Your task to perform on an android device: Search for "rayovac triple a" on walmart, select the first entry, and add it to the cart. Image 0: 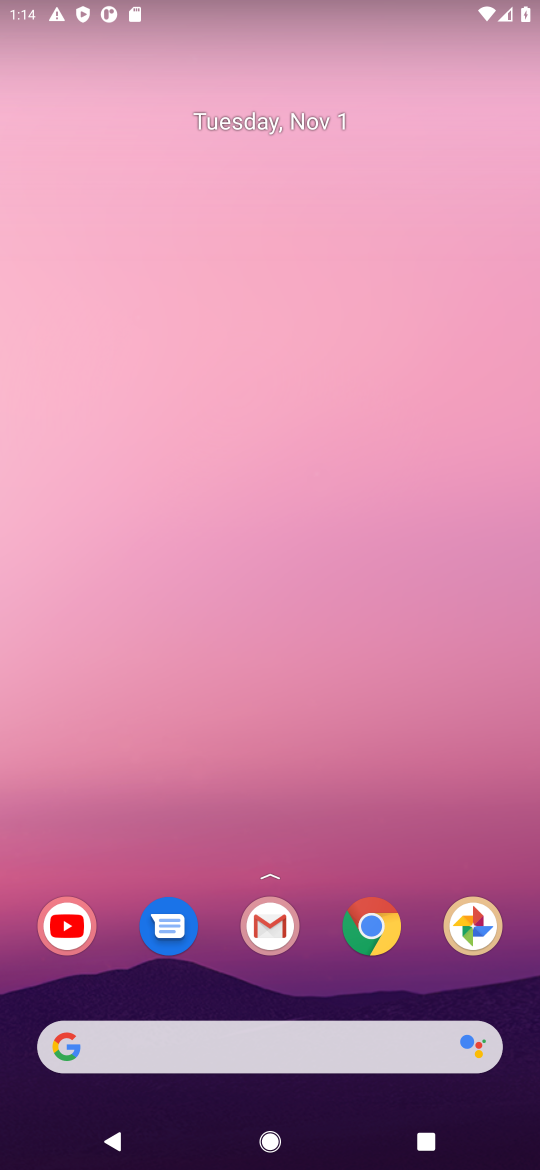
Step 0: click (373, 926)
Your task to perform on an android device: Search for "rayovac triple a" on walmart, select the first entry, and add it to the cart. Image 1: 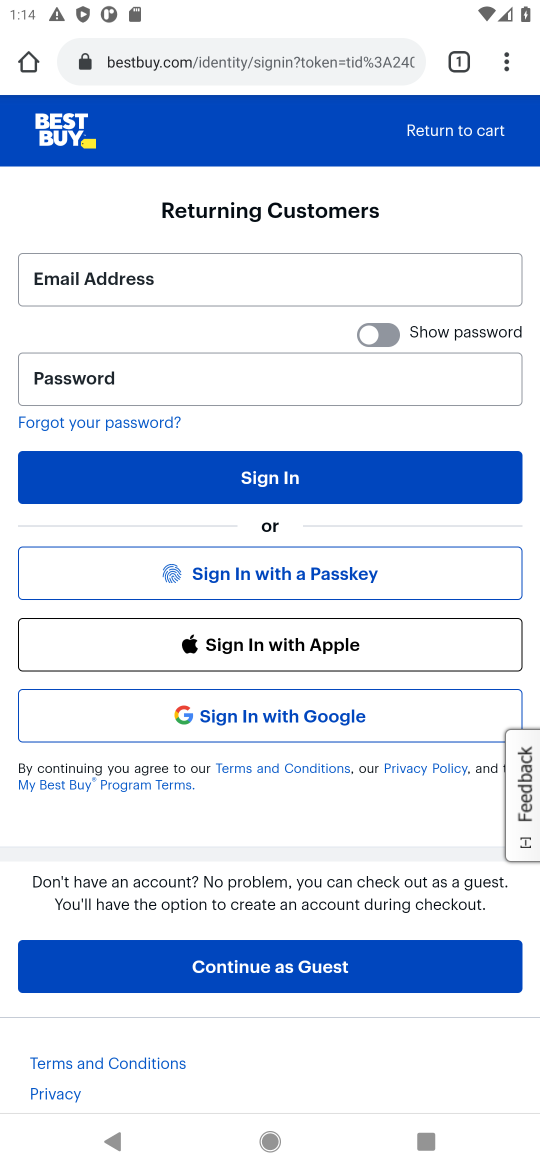
Step 1: click (344, 53)
Your task to perform on an android device: Search for "rayovac triple a" on walmart, select the first entry, and add it to the cart. Image 2: 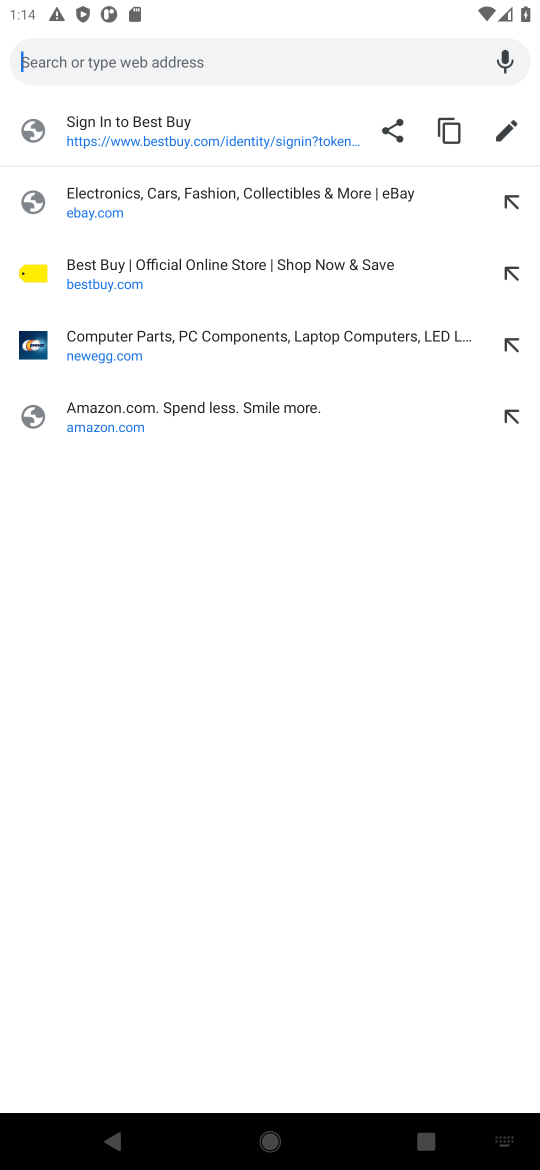
Step 2: type "walmart"
Your task to perform on an android device: Search for "rayovac triple a" on walmart, select the first entry, and add it to the cart. Image 3: 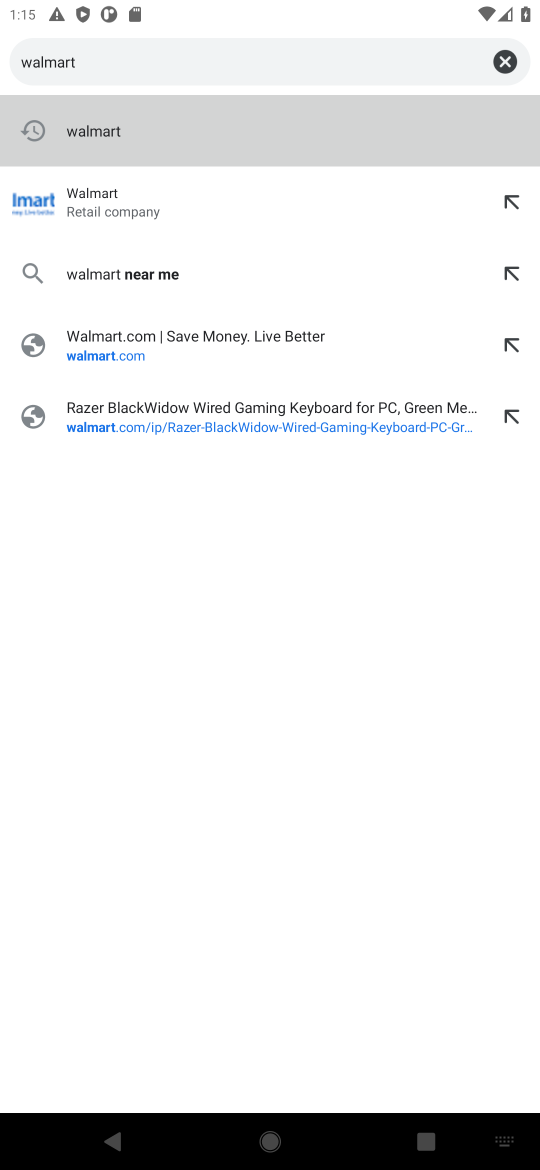
Step 3: click (166, 133)
Your task to perform on an android device: Search for "rayovac triple a" on walmart, select the first entry, and add it to the cart. Image 4: 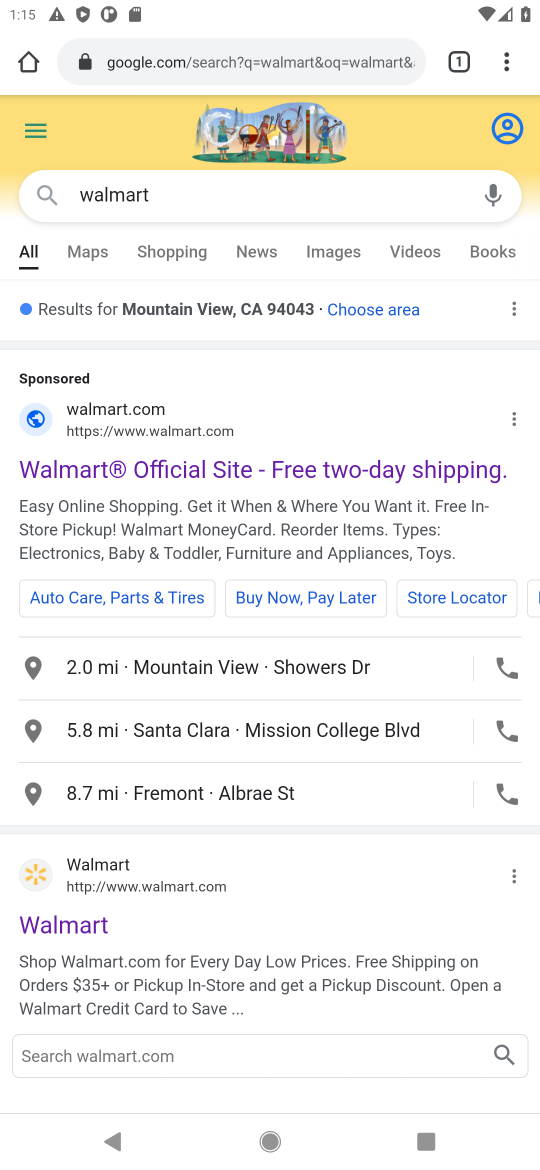
Step 4: click (70, 926)
Your task to perform on an android device: Search for "rayovac triple a" on walmart, select the first entry, and add it to the cart. Image 5: 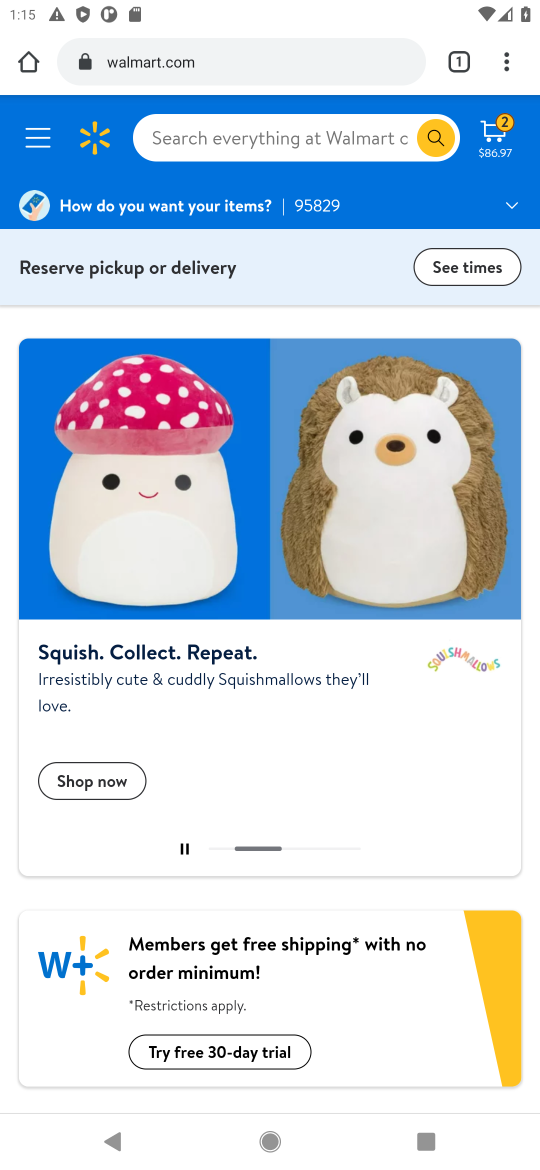
Step 5: click (248, 142)
Your task to perform on an android device: Search for "rayovac triple a" on walmart, select the first entry, and add it to the cart. Image 6: 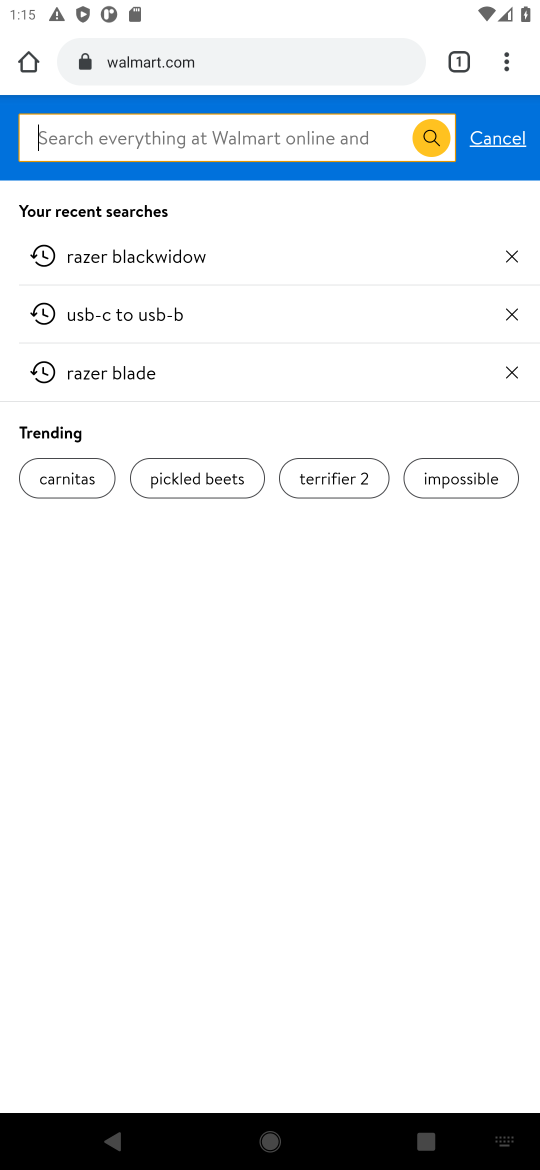
Step 6: type "rayovac triple a"
Your task to perform on an android device: Search for "rayovac triple a" on walmart, select the first entry, and add it to the cart. Image 7: 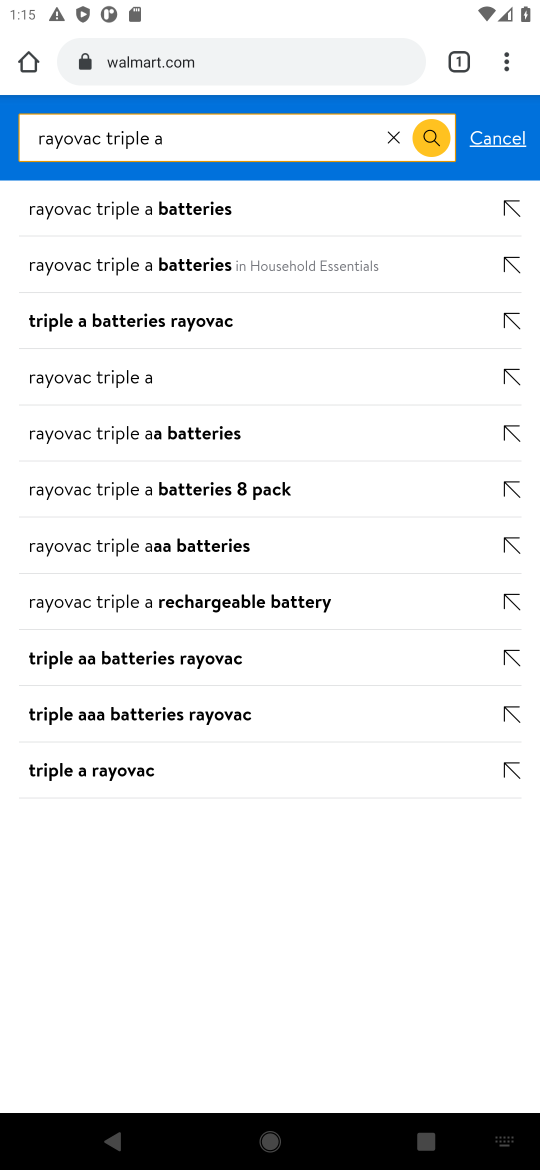
Step 7: press enter
Your task to perform on an android device: Search for "rayovac triple a" on walmart, select the first entry, and add it to the cart. Image 8: 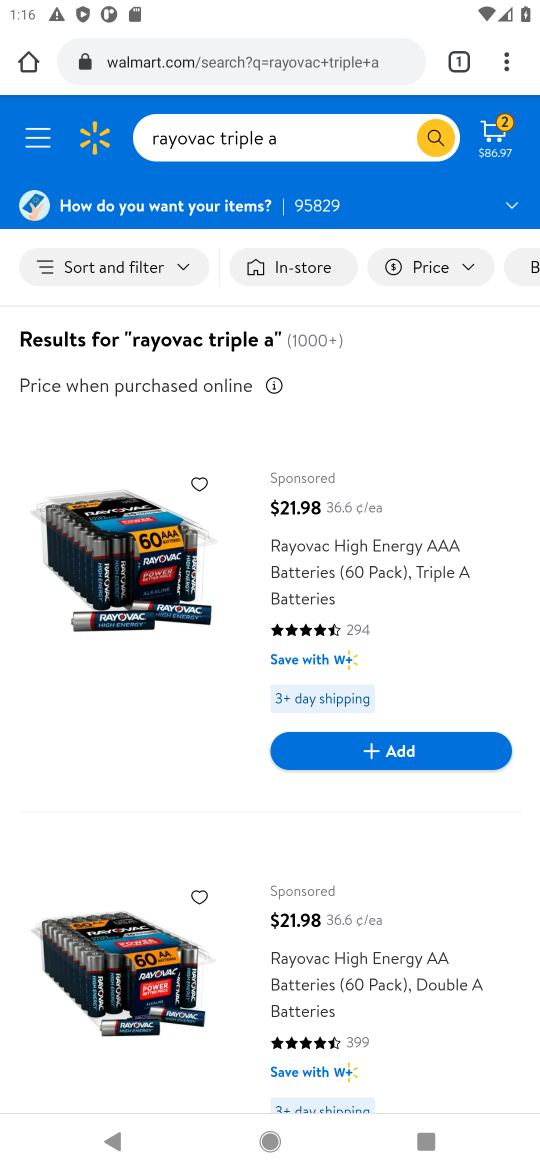
Step 8: click (321, 559)
Your task to perform on an android device: Search for "rayovac triple a" on walmart, select the first entry, and add it to the cart. Image 9: 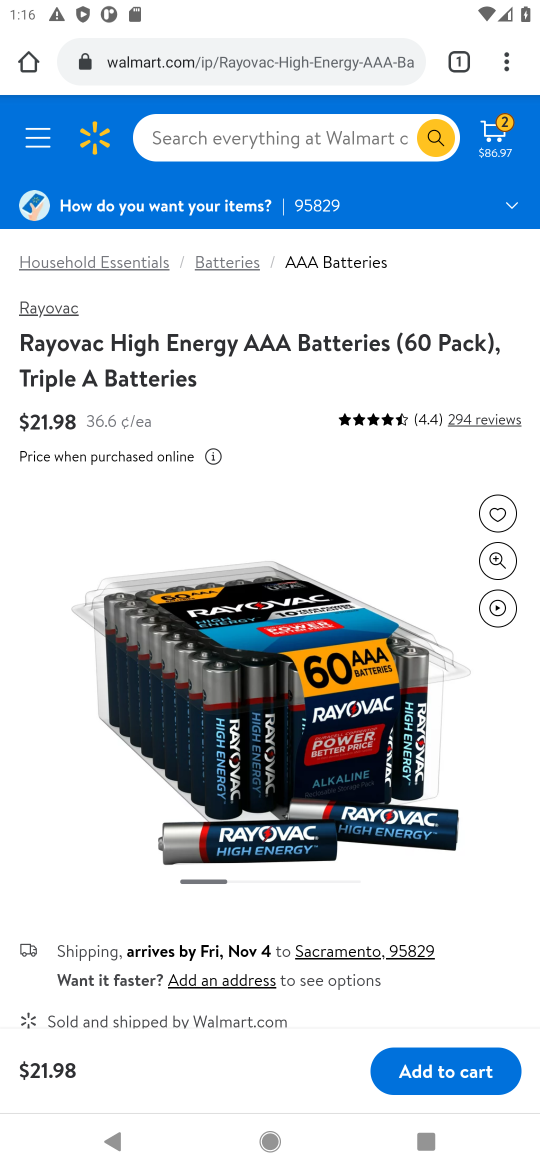
Step 9: click (453, 1069)
Your task to perform on an android device: Search for "rayovac triple a" on walmart, select the first entry, and add it to the cart. Image 10: 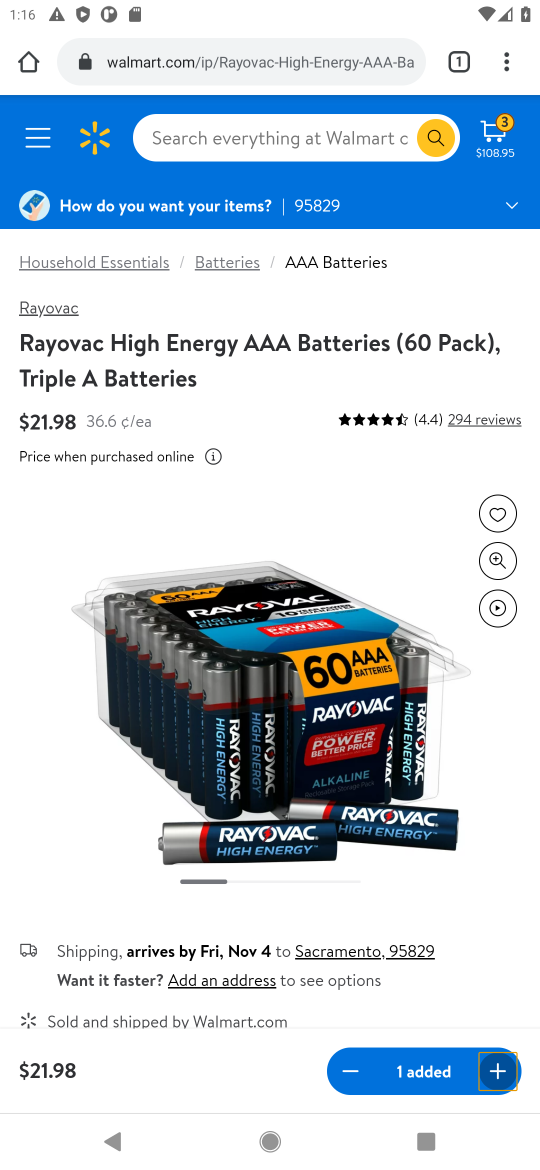
Step 10: task complete